Your task to perform on an android device: Go to Amazon Image 0: 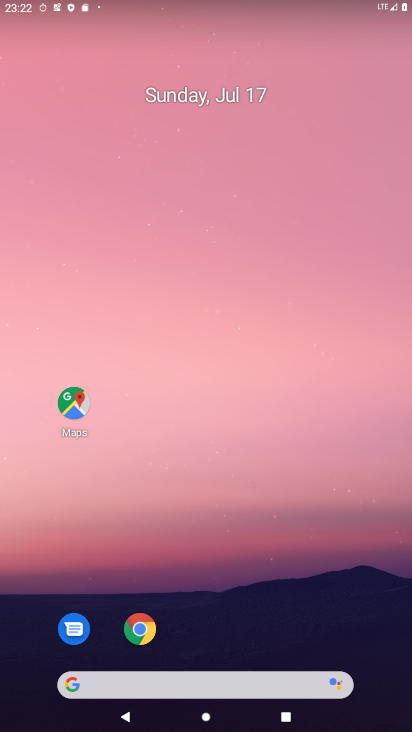
Step 0: click (140, 631)
Your task to perform on an android device: Go to Amazon Image 1: 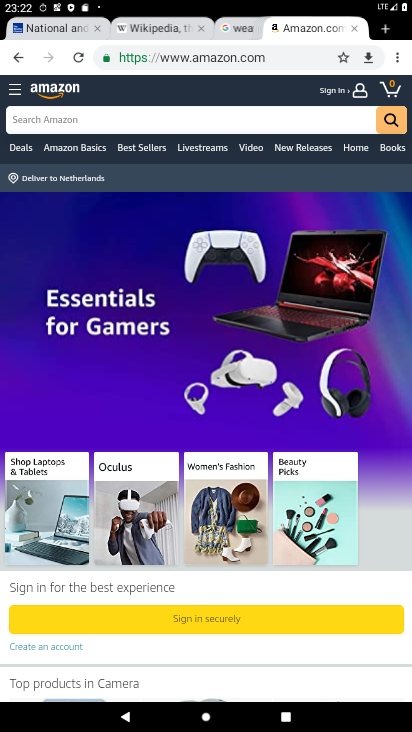
Step 1: task complete